Your task to perform on an android device: Open the stopwatch Image 0: 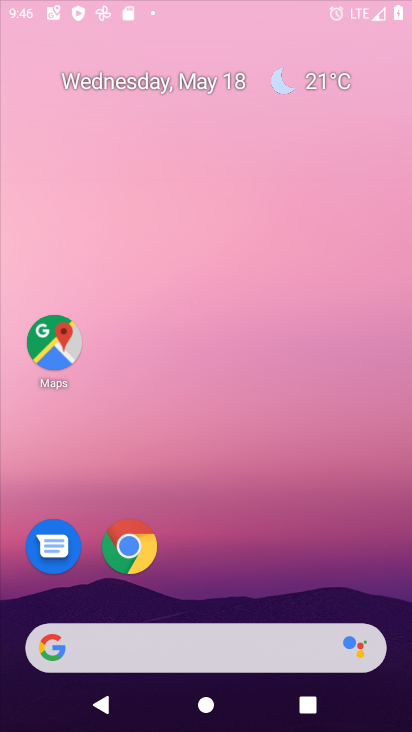
Step 0: click (365, 104)
Your task to perform on an android device: Open the stopwatch Image 1: 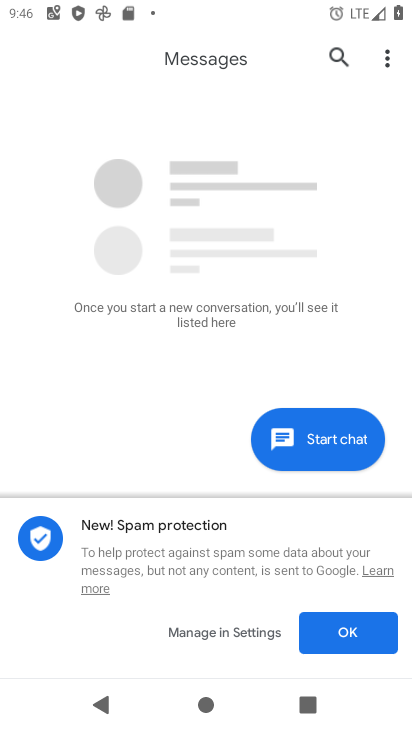
Step 1: press home button
Your task to perform on an android device: Open the stopwatch Image 2: 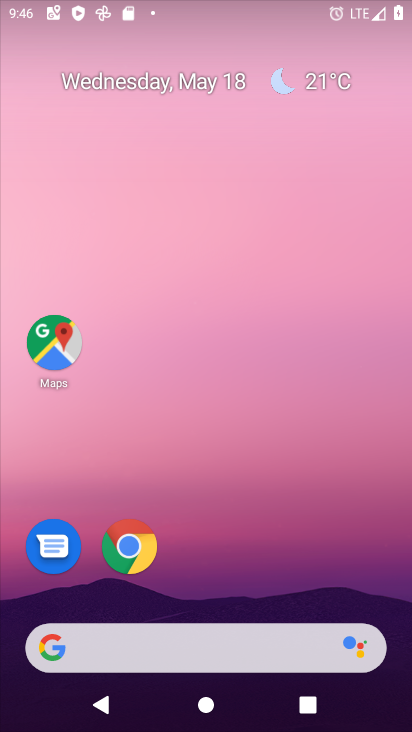
Step 2: drag from (403, 634) to (307, 3)
Your task to perform on an android device: Open the stopwatch Image 3: 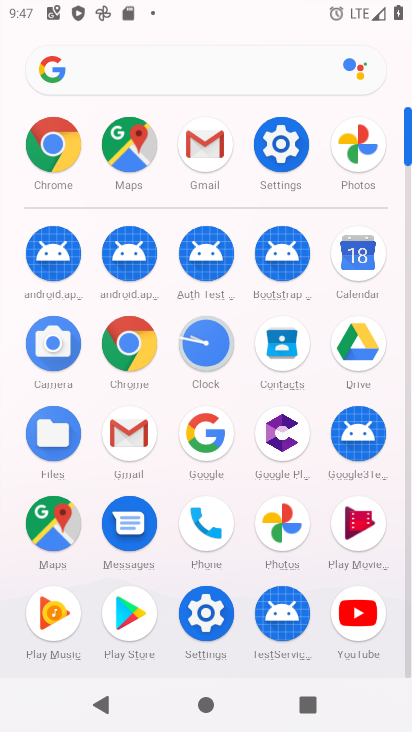
Step 3: click (234, 349)
Your task to perform on an android device: Open the stopwatch Image 4: 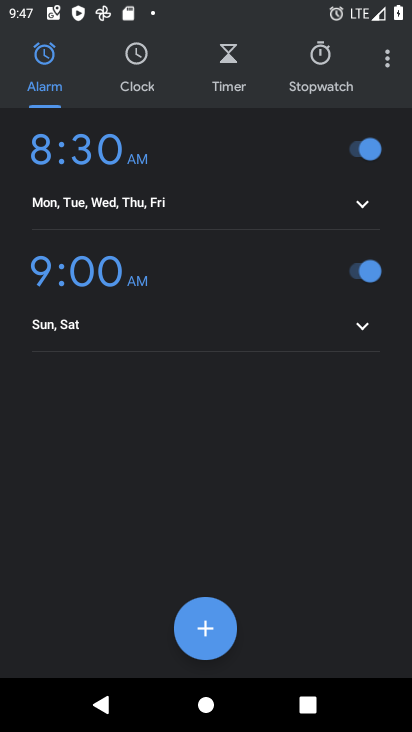
Step 4: click (311, 83)
Your task to perform on an android device: Open the stopwatch Image 5: 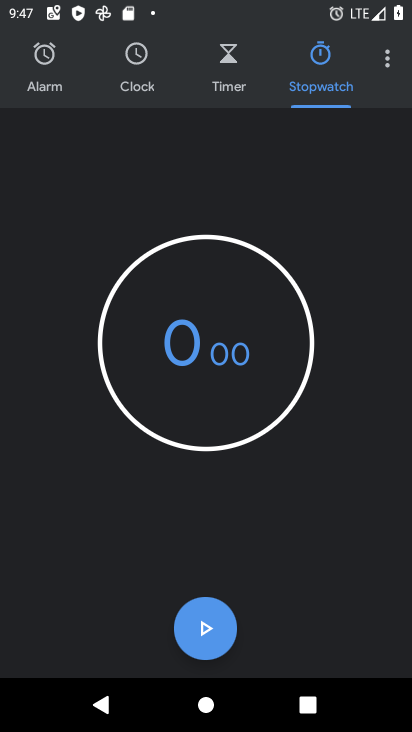
Step 5: task complete